Your task to perform on an android device: delete the emails in spam in the gmail app Image 0: 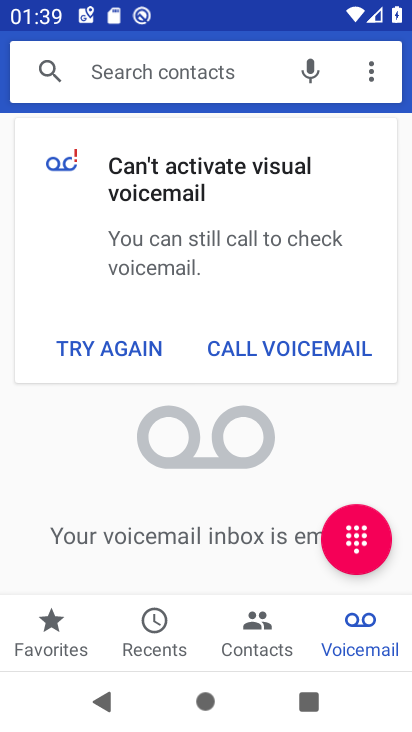
Step 0: press home button
Your task to perform on an android device: delete the emails in spam in the gmail app Image 1: 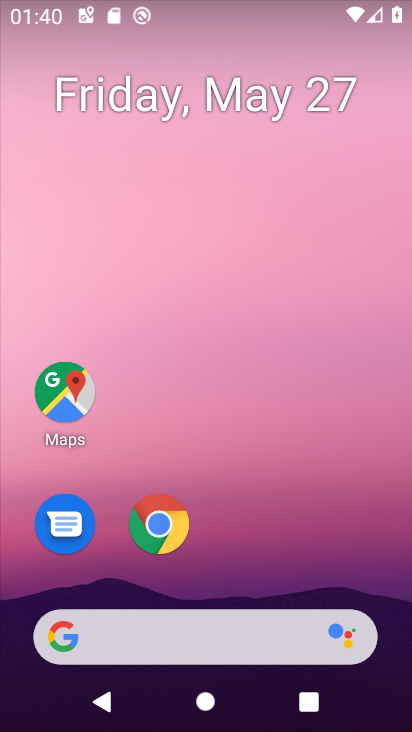
Step 1: drag from (254, 527) to (281, 1)
Your task to perform on an android device: delete the emails in spam in the gmail app Image 2: 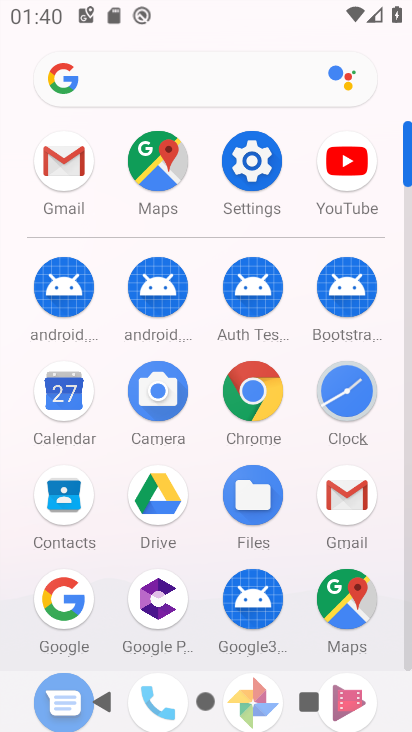
Step 2: click (60, 160)
Your task to perform on an android device: delete the emails in spam in the gmail app Image 3: 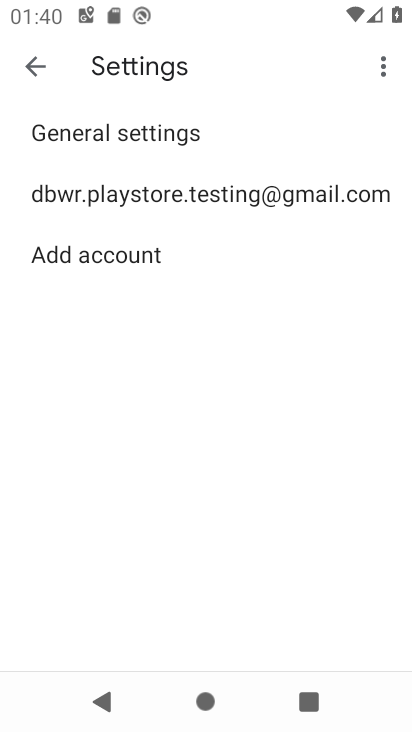
Step 3: click (42, 59)
Your task to perform on an android device: delete the emails in spam in the gmail app Image 4: 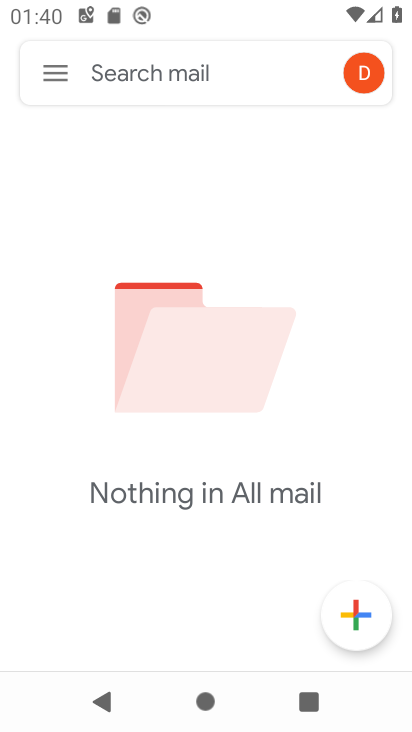
Step 4: click (53, 68)
Your task to perform on an android device: delete the emails in spam in the gmail app Image 5: 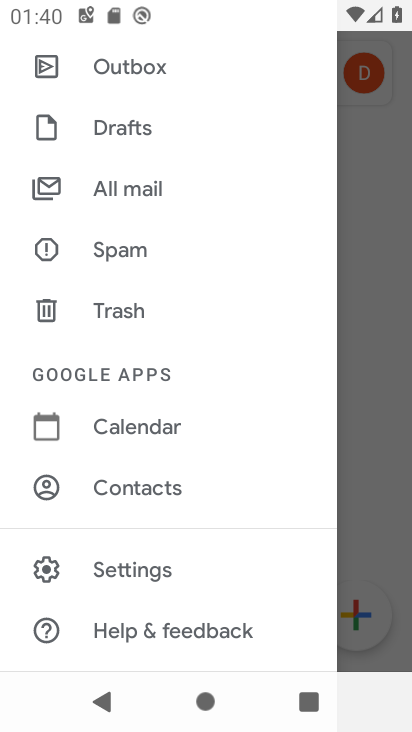
Step 5: click (151, 246)
Your task to perform on an android device: delete the emails in spam in the gmail app Image 6: 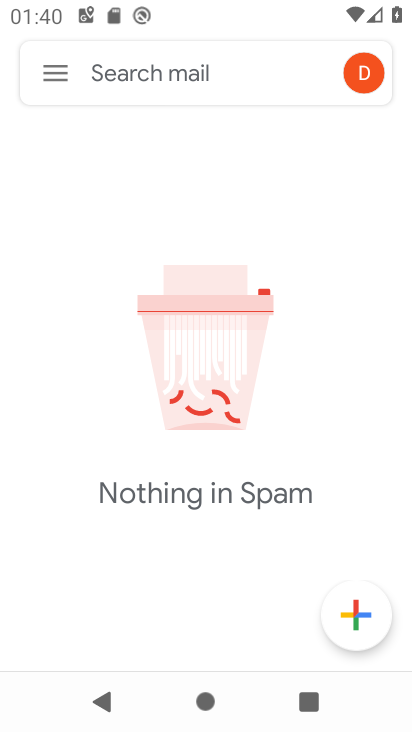
Step 6: task complete